Your task to perform on an android device: Open Google Image 0: 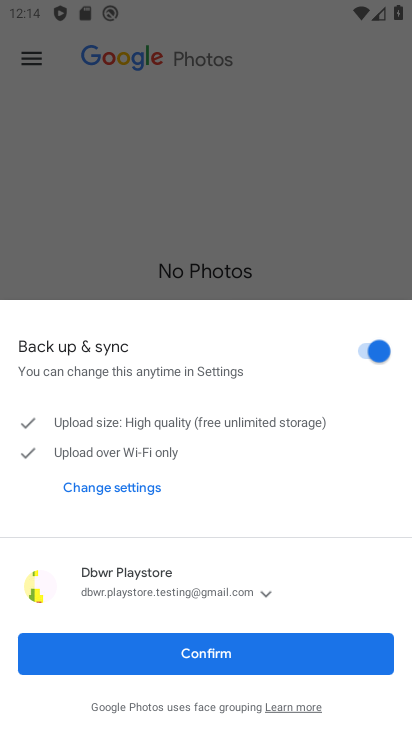
Step 0: click (262, 648)
Your task to perform on an android device: Open Google Image 1: 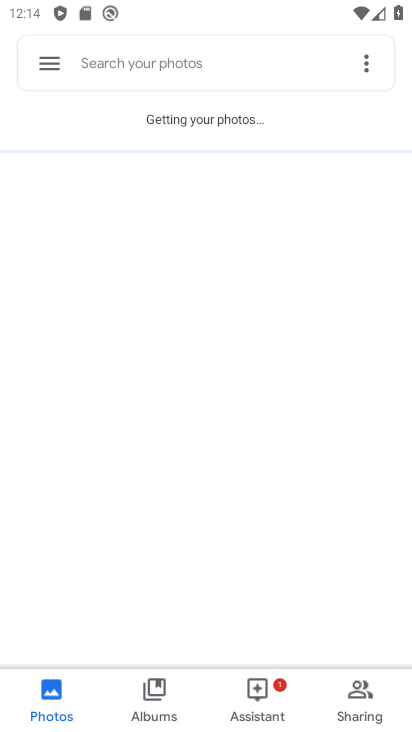
Step 1: press home button
Your task to perform on an android device: Open Google Image 2: 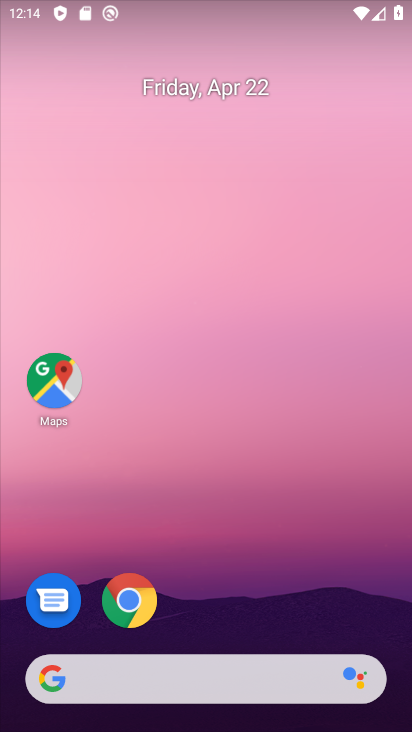
Step 2: click (119, 665)
Your task to perform on an android device: Open Google Image 3: 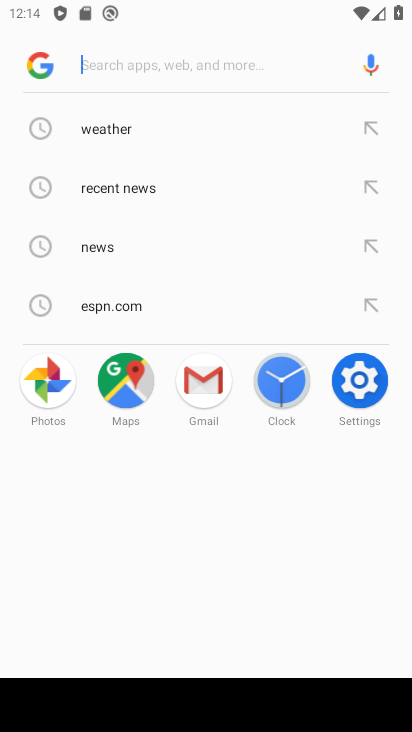
Step 3: type "google.com"
Your task to perform on an android device: Open Google Image 4: 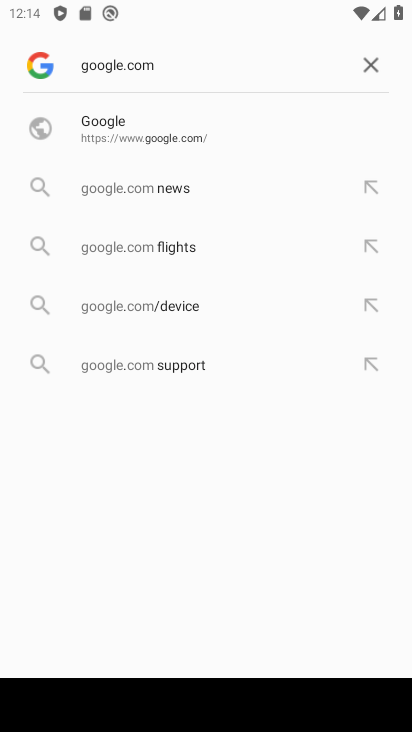
Step 4: click (163, 122)
Your task to perform on an android device: Open Google Image 5: 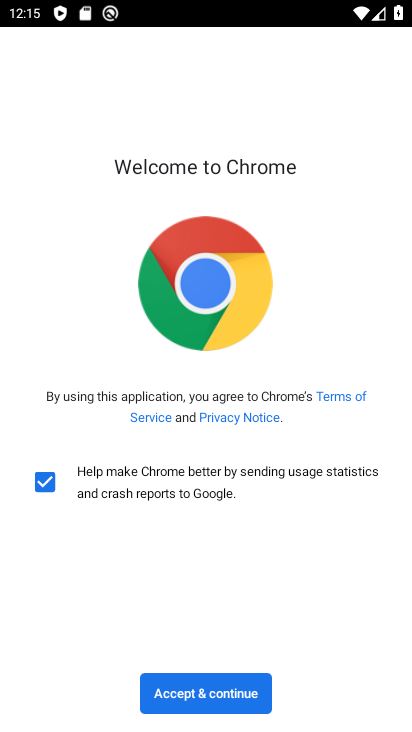
Step 5: click (196, 698)
Your task to perform on an android device: Open Google Image 6: 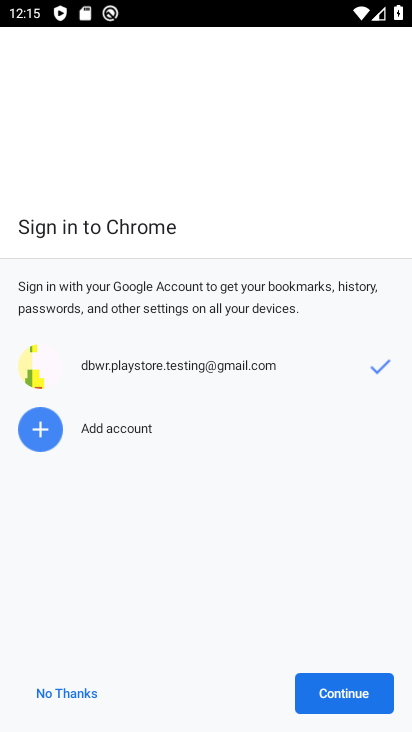
Step 6: click (366, 702)
Your task to perform on an android device: Open Google Image 7: 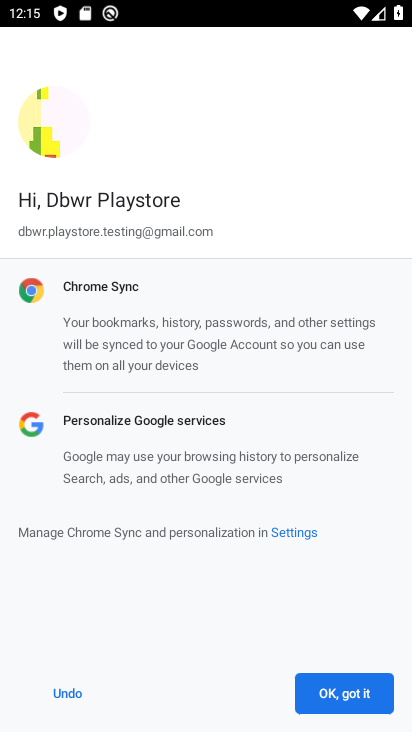
Step 7: click (366, 702)
Your task to perform on an android device: Open Google Image 8: 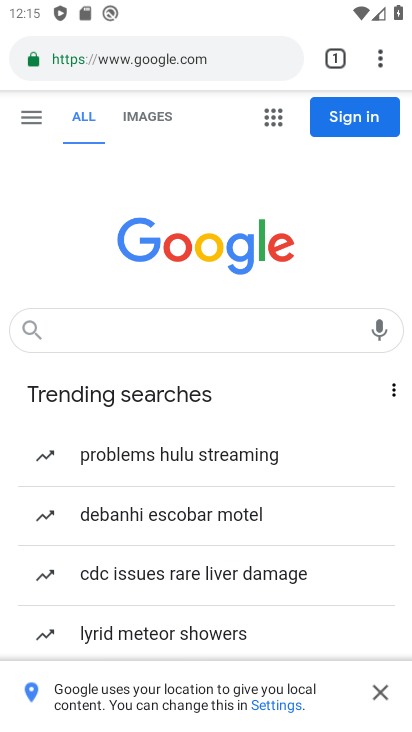
Step 8: task complete